Your task to perform on an android device: check the backup settings in the google photos Image 0: 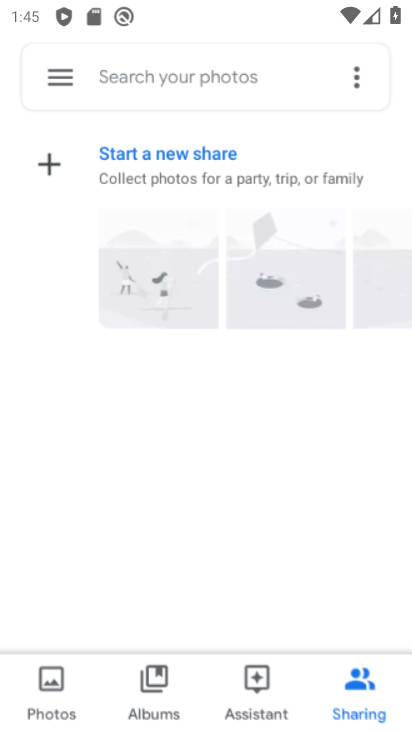
Step 0: drag from (260, 560) to (289, 379)
Your task to perform on an android device: check the backup settings in the google photos Image 1: 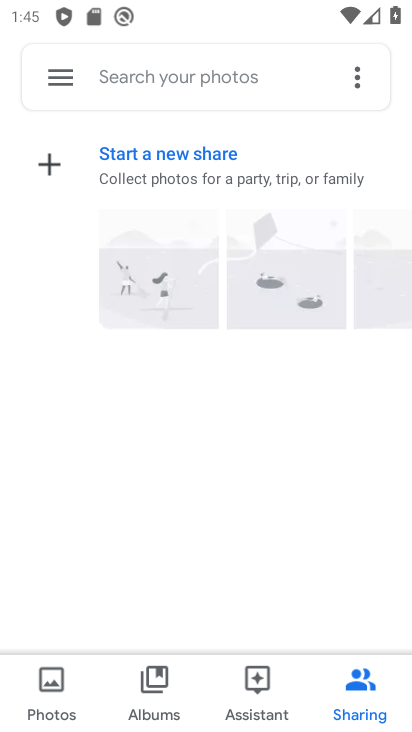
Step 1: press home button
Your task to perform on an android device: check the backup settings in the google photos Image 2: 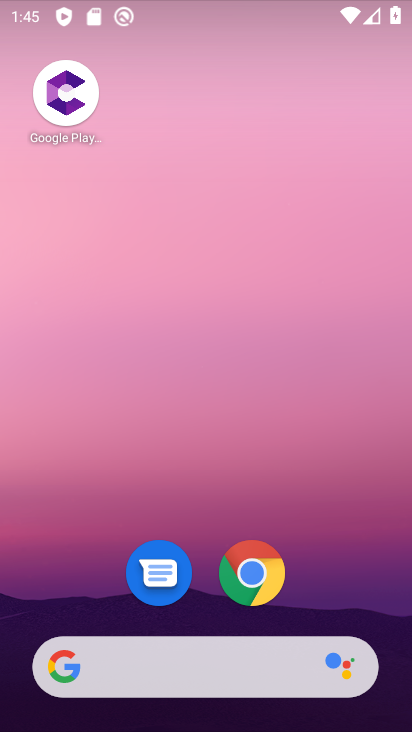
Step 2: drag from (315, 592) to (311, 169)
Your task to perform on an android device: check the backup settings in the google photos Image 3: 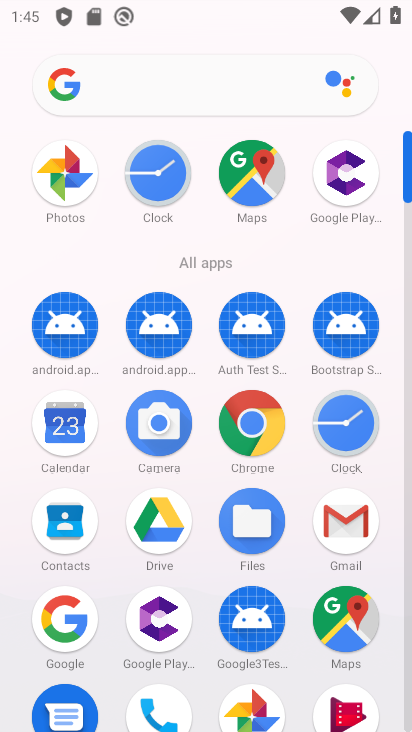
Step 3: click (256, 707)
Your task to perform on an android device: check the backup settings in the google photos Image 4: 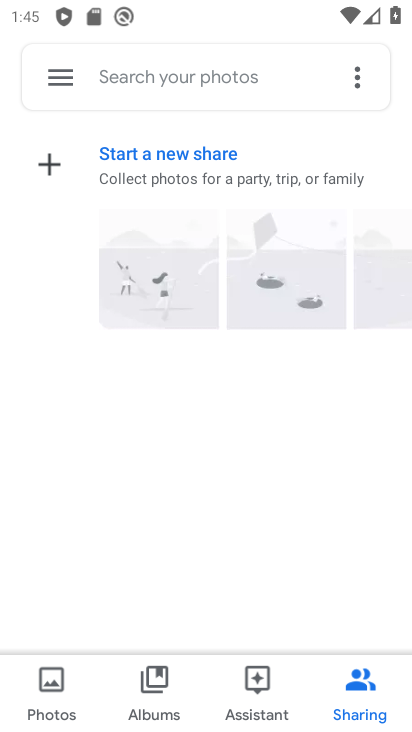
Step 4: click (57, 76)
Your task to perform on an android device: check the backup settings in the google photos Image 5: 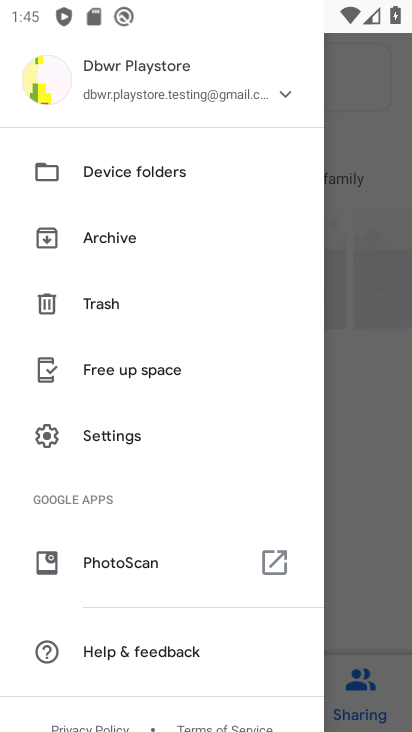
Step 5: click (109, 438)
Your task to perform on an android device: check the backup settings in the google photos Image 6: 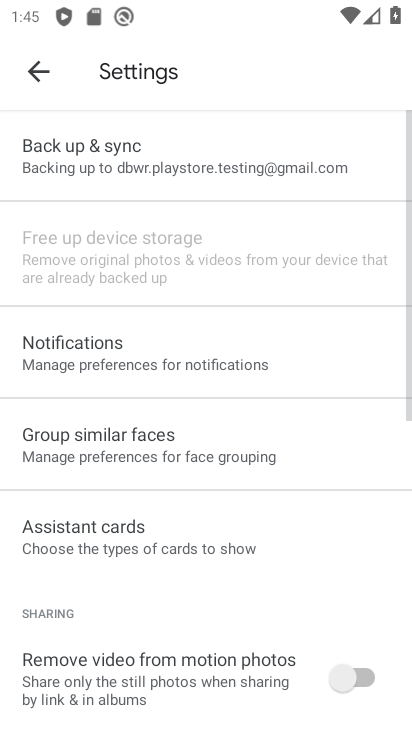
Step 6: click (198, 155)
Your task to perform on an android device: check the backup settings in the google photos Image 7: 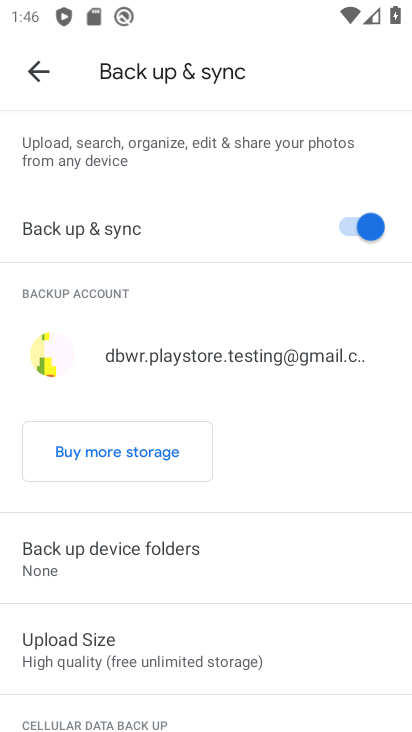
Step 7: task complete